Your task to perform on an android device: toggle data saver in the chrome app Image 0: 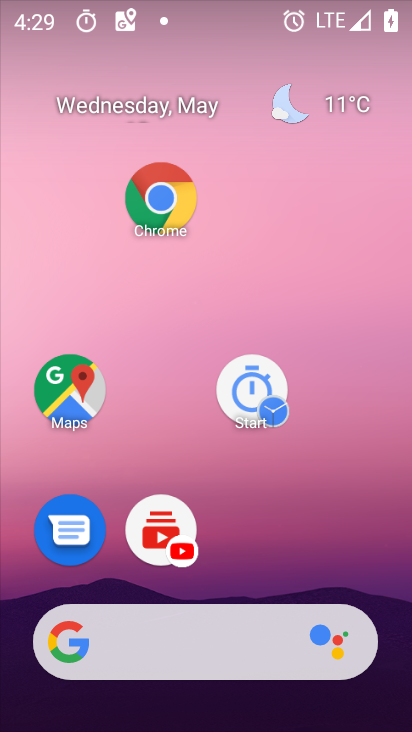
Step 0: drag from (280, 560) to (407, 78)
Your task to perform on an android device: toggle data saver in the chrome app Image 1: 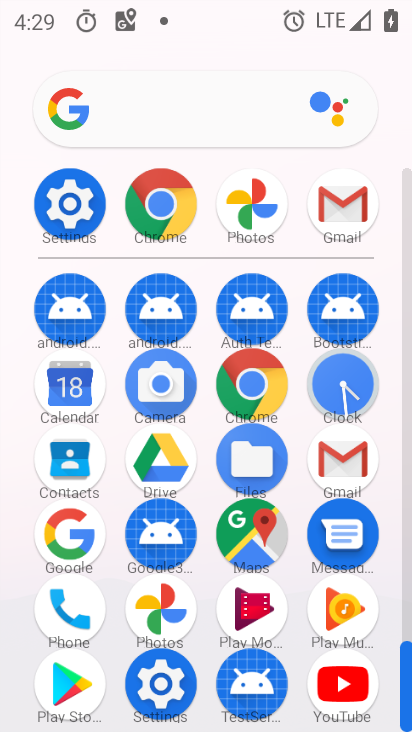
Step 1: click (169, 205)
Your task to perform on an android device: toggle data saver in the chrome app Image 2: 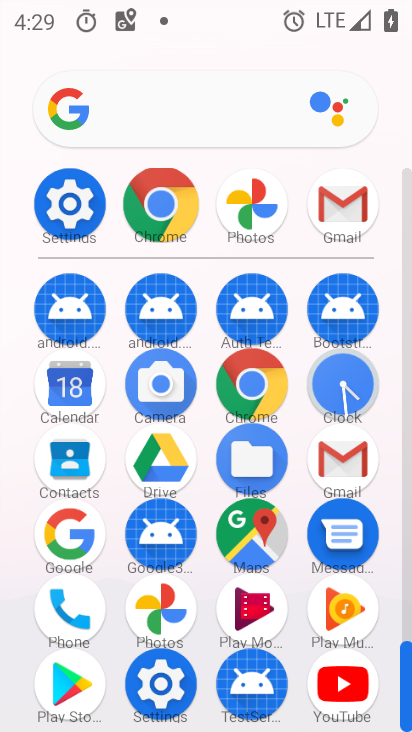
Step 2: click (169, 205)
Your task to perform on an android device: toggle data saver in the chrome app Image 3: 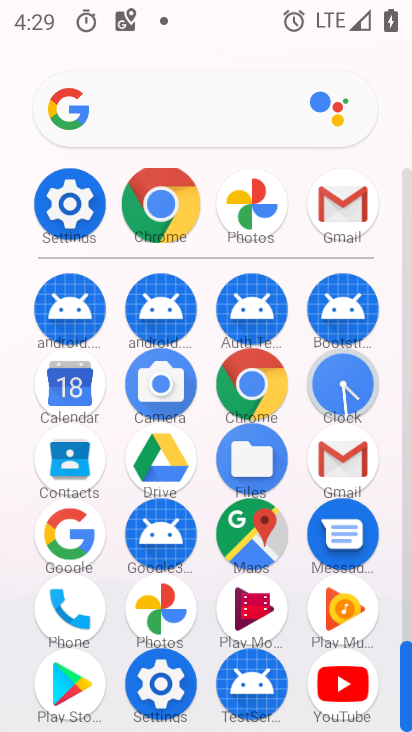
Step 3: click (169, 205)
Your task to perform on an android device: toggle data saver in the chrome app Image 4: 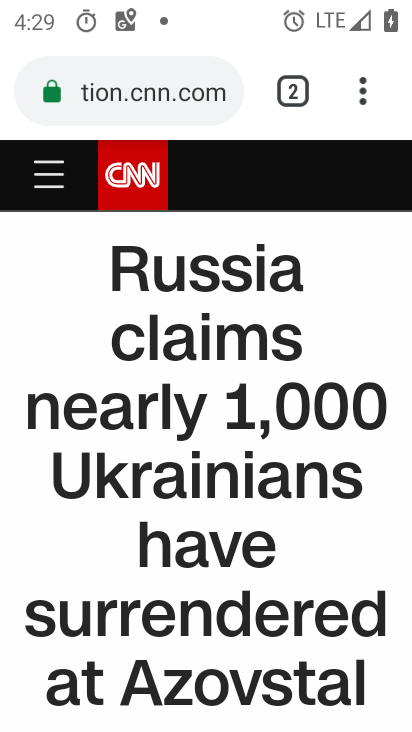
Step 4: drag from (355, 101) to (87, 565)
Your task to perform on an android device: toggle data saver in the chrome app Image 5: 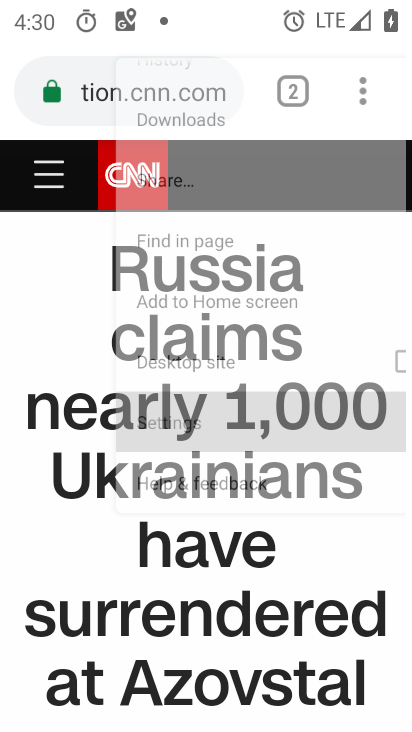
Step 5: click (96, 545)
Your task to perform on an android device: toggle data saver in the chrome app Image 6: 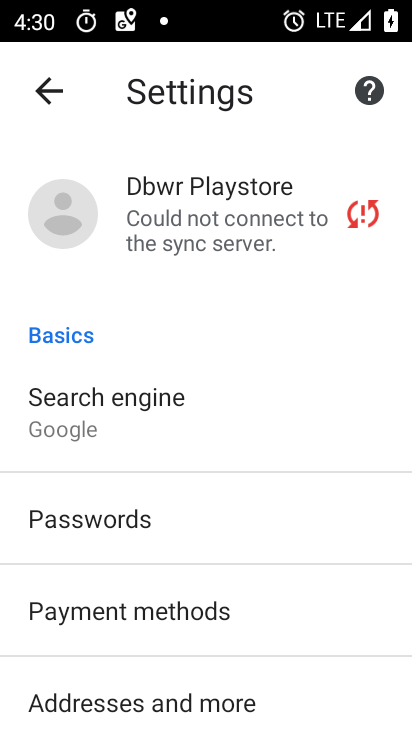
Step 6: drag from (170, 541) to (109, 212)
Your task to perform on an android device: toggle data saver in the chrome app Image 7: 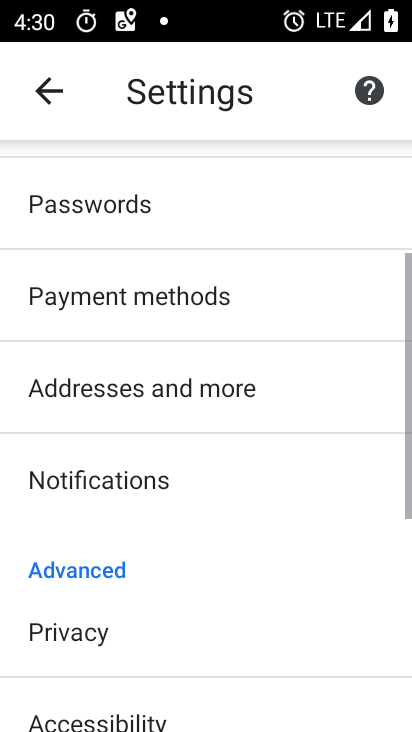
Step 7: drag from (196, 450) to (196, 145)
Your task to perform on an android device: toggle data saver in the chrome app Image 8: 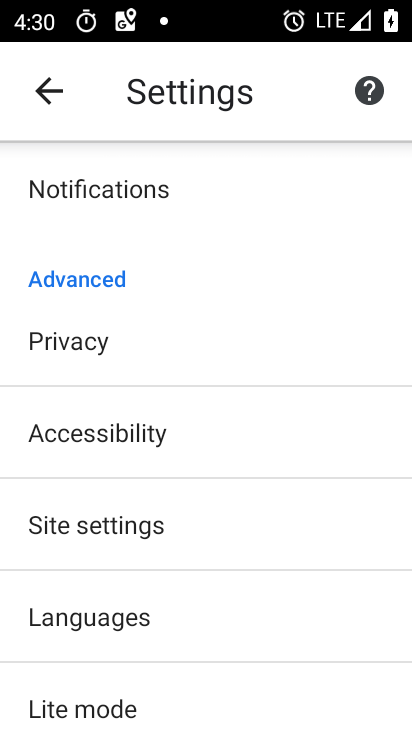
Step 8: click (70, 707)
Your task to perform on an android device: toggle data saver in the chrome app Image 9: 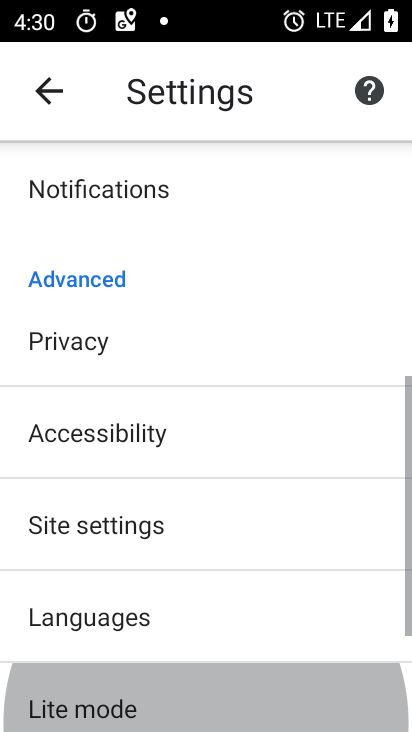
Step 9: click (70, 707)
Your task to perform on an android device: toggle data saver in the chrome app Image 10: 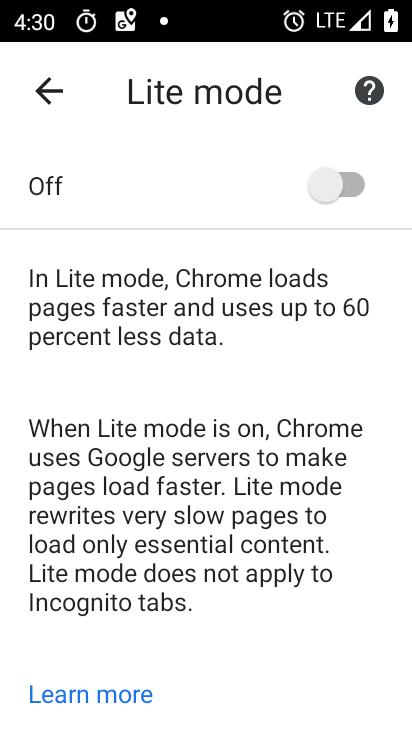
Step 10: click (320, 170)
Your task to perform on an android device: toggle data saver in the chrome app Image 11: 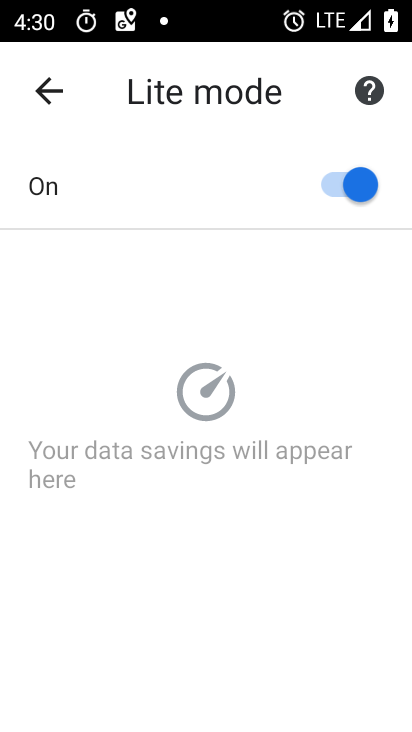
Step 11: task complete